Your task to perform on an android device: Clear the shopping cart on amazon. Search for razer thresher on amazon, select the first entry, add it to the cart, then select checkout. Image 0: 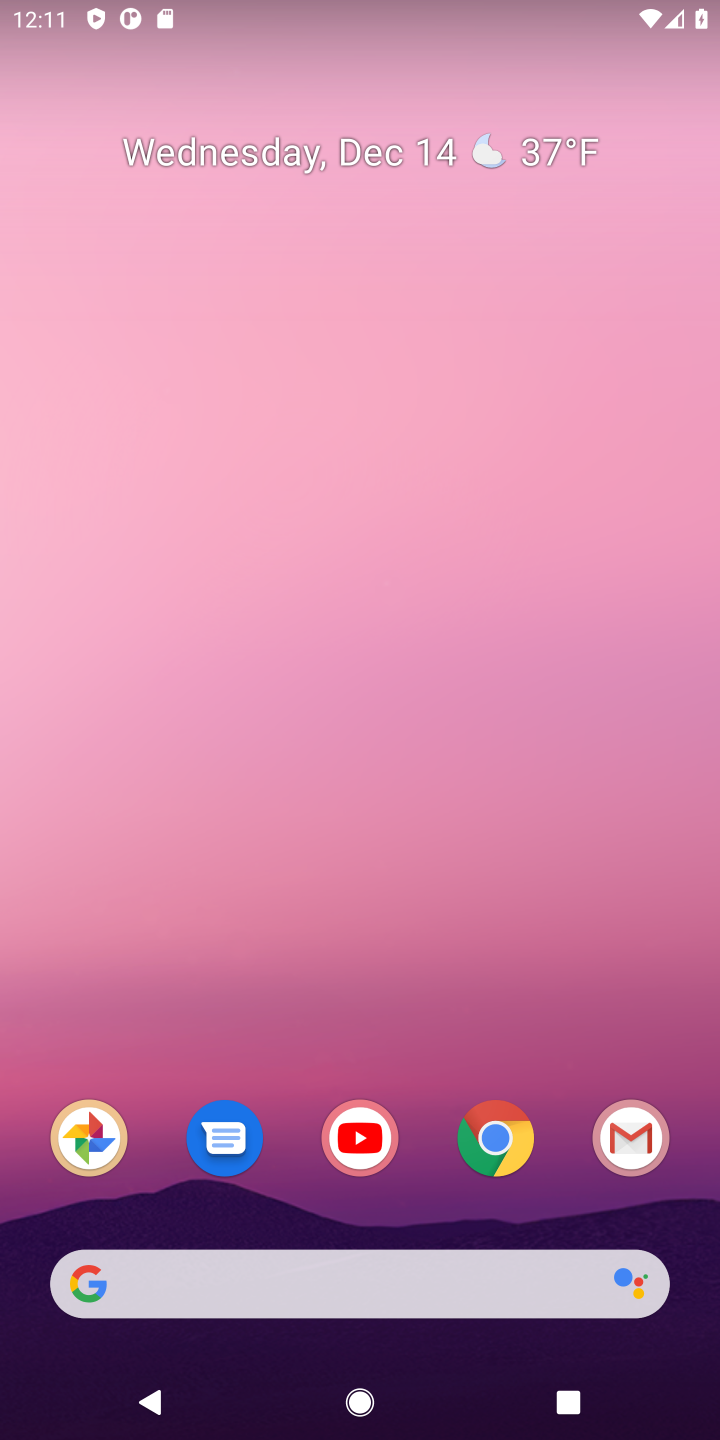
Step 0: click (503, 1137)
Your task to perform on an android device: Clear the shopping cart on amazon. Search for razer thresher on amazon, select the first entry, add it to the cart, then select checkout. Image 1: 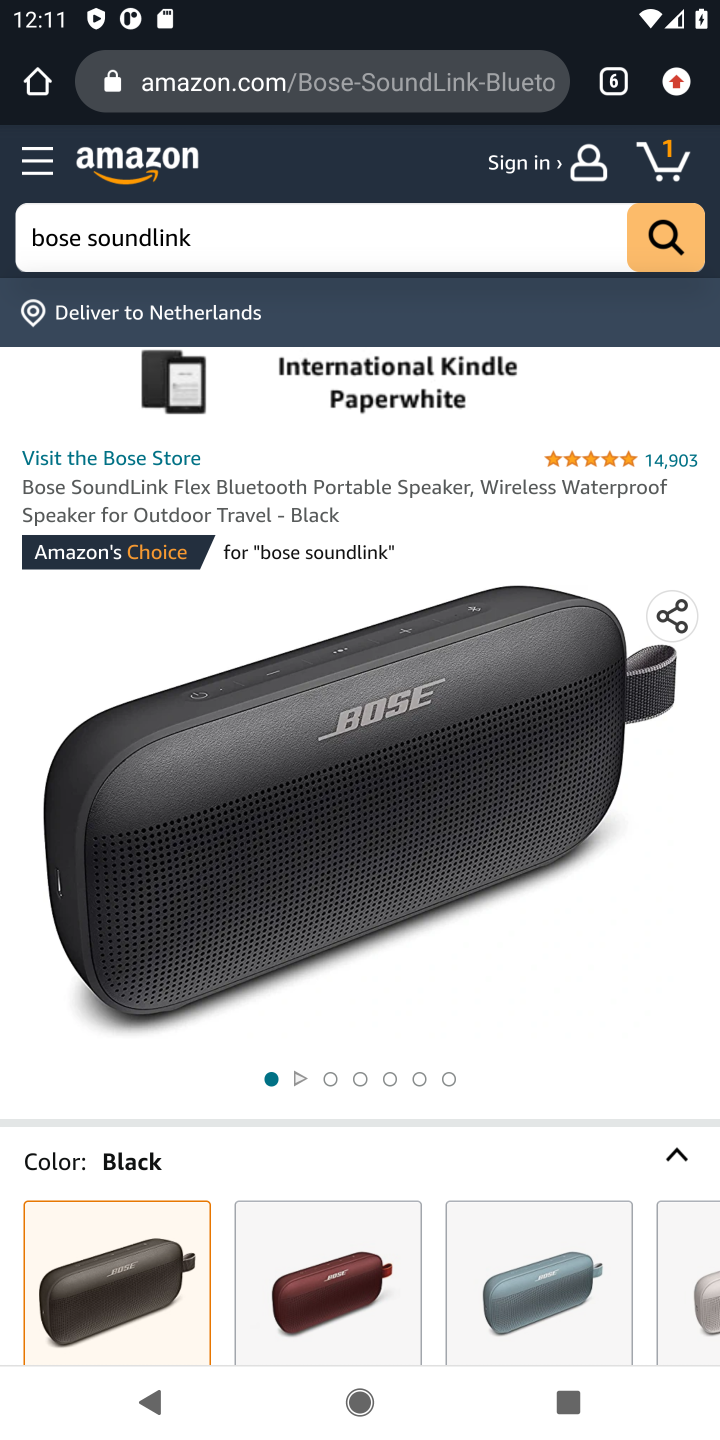
Step 1: click (670, 149)
Your task to perform on an android device: Clear the shopping cart on amazon. Search for razer thresher on amazon, select the first entry, add it to the cart, then select checkout. Image 2: 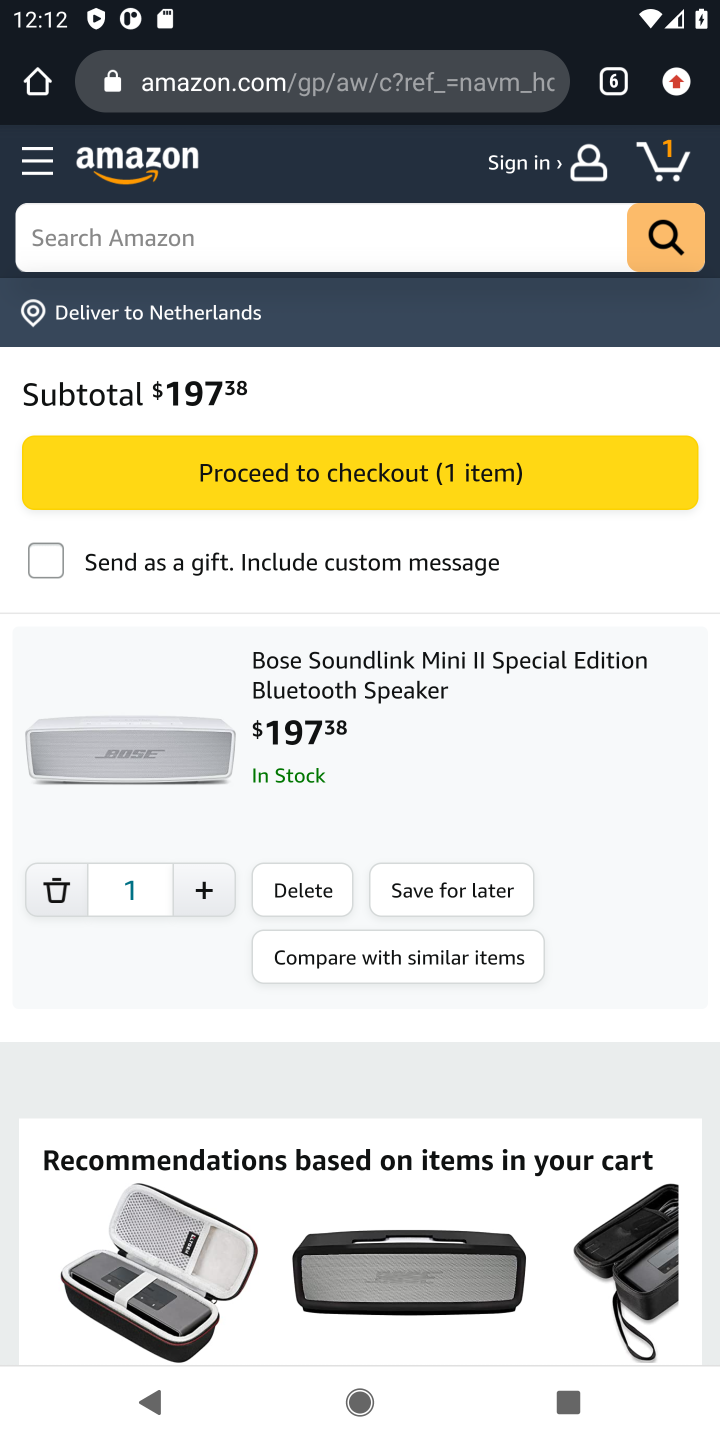
Step 2: click (300, 894)
Your task to perform on an android device: Clear the shopping cart on amazon. Search for razer thresher on amazon, select the first entry, add it to the cart, then select checkout. Image 3: 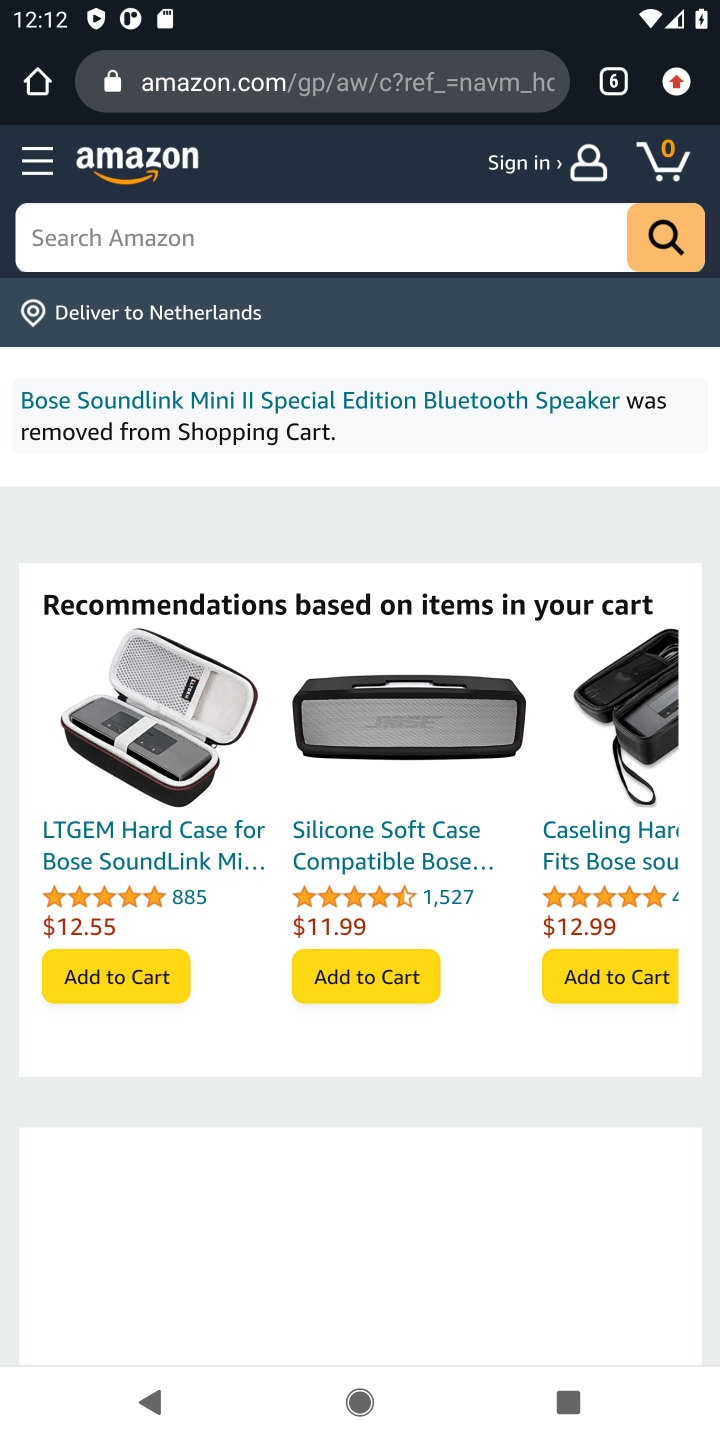
Step 3: click (264, 246)
Your task to perform on an android device: Clear the shopping cart on amazon. Search for razer thresher on amazon, select the first entry, add it to the cart, then select checkout. Image 4: 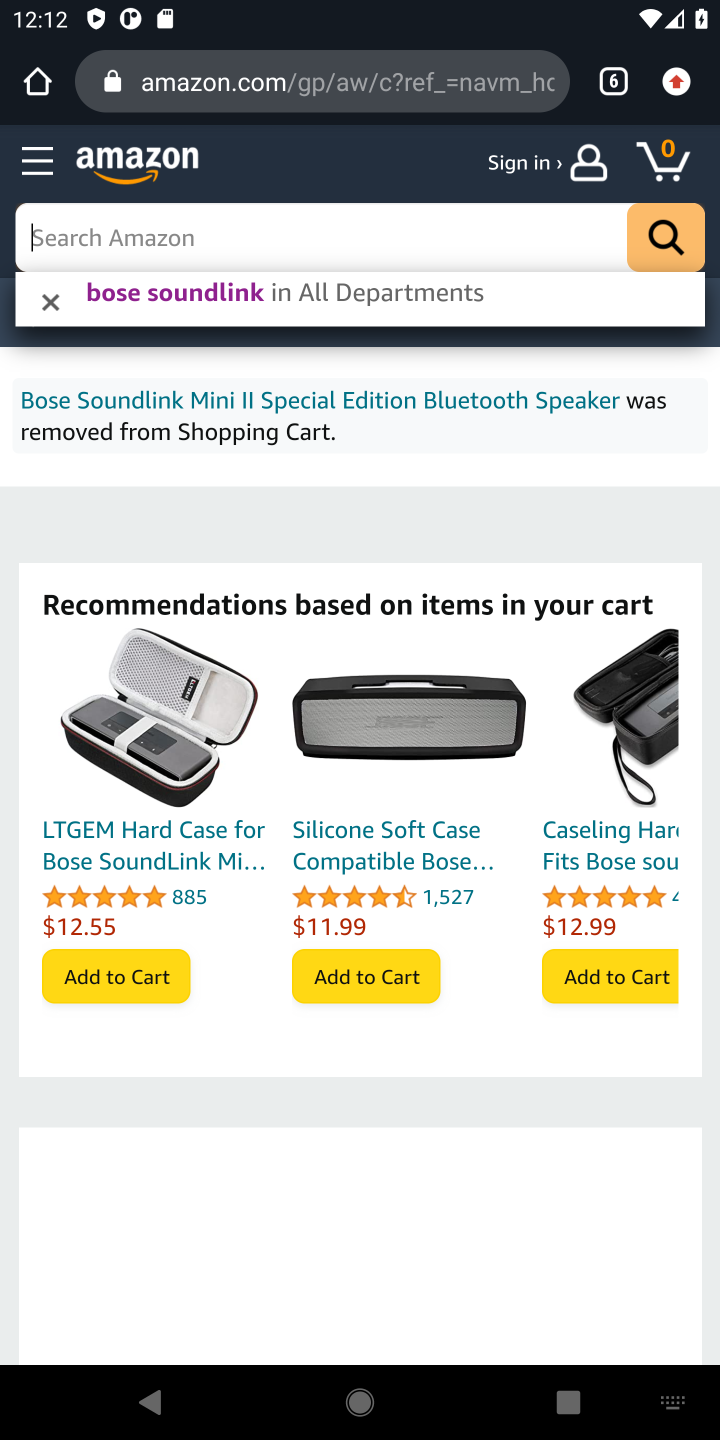
Step 4: type "razer thresher"
Your task to perform on an android device: Clear the shopping cart on amazon. Search for razer thresher on amazon, select the first entry, add it to the cart, then select checkout. Image 5: 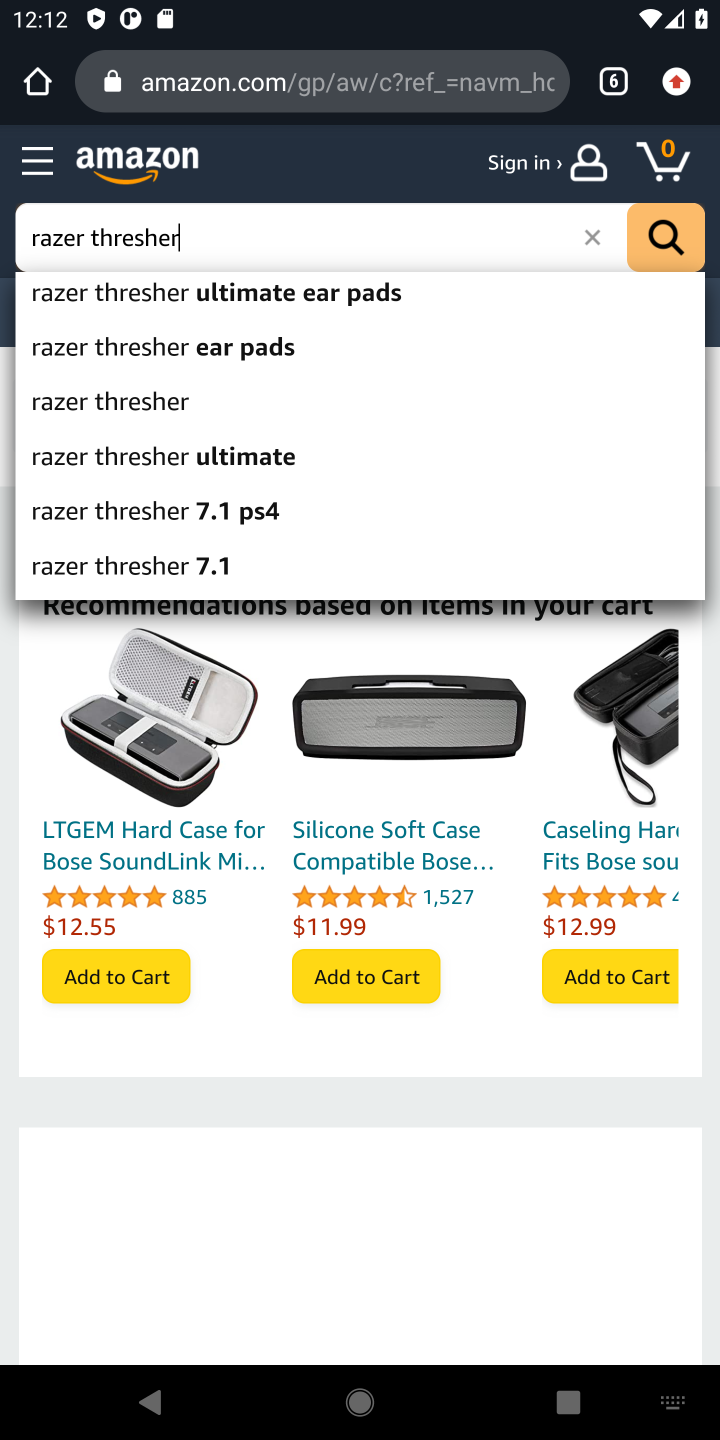
Step 5: click (126, 393)
Your task to perform on an android device: Clear the shopping cart on amazon. Search for razer thresher on amazon, select the first entry, add it to the cart, then select checkout. Image 6: 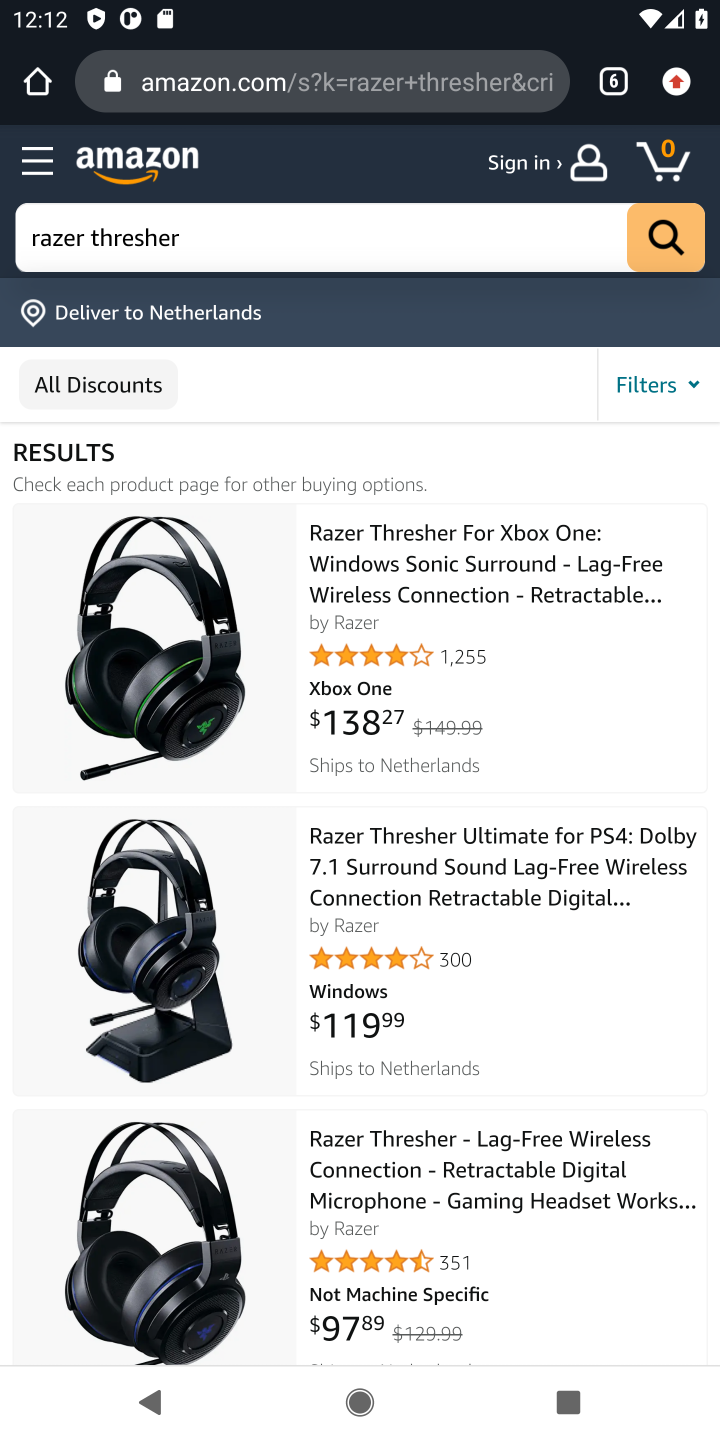
Step 6: click (403, 548)
Your task to perform on an android device: Clear the shopping cart on amazon. Search for razer thresher on amazon, select the first entry, add it to the cart, then select checkout. Image 7: 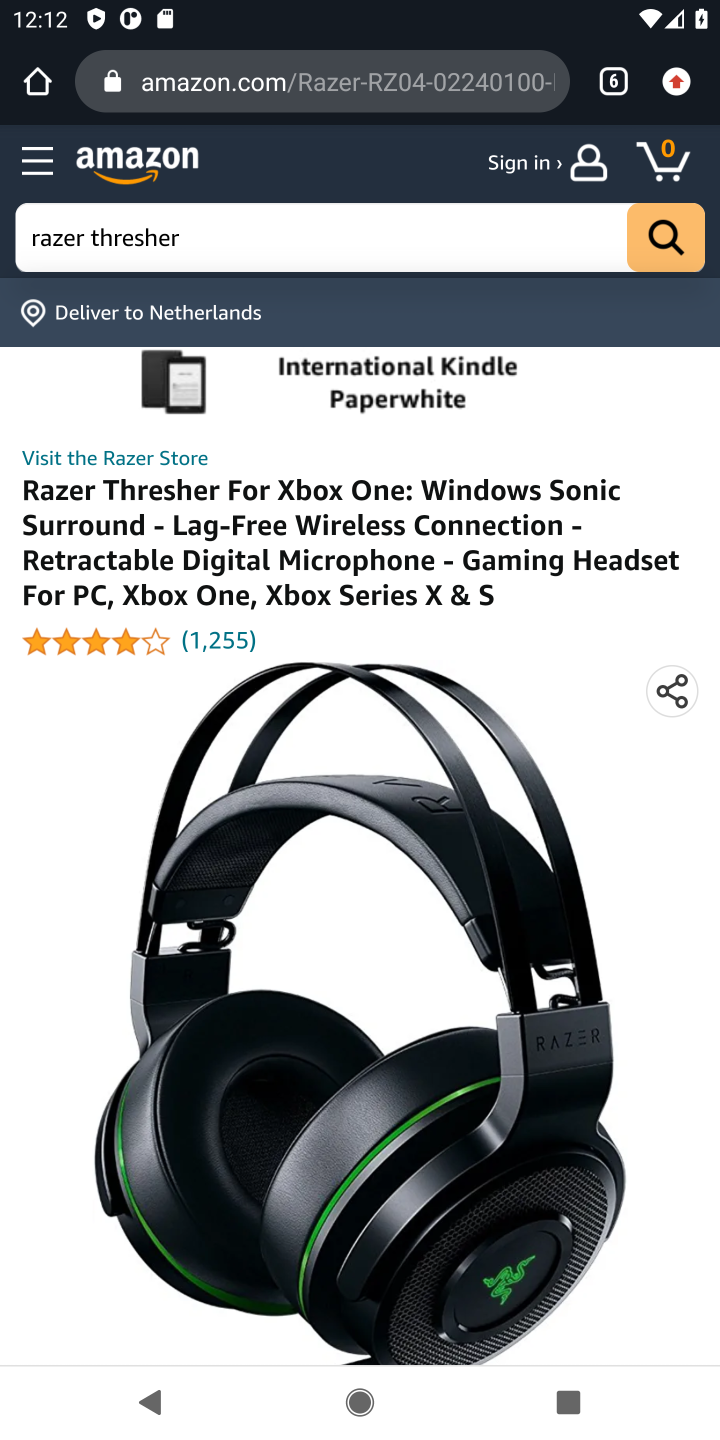
Step 7: drag from (545, 1100) to (667, 282)
Your task to perform on an android device: Clear the shopping cart on amazon. Search for razer thresher on amazon, select the first entry, add it to the cart, then select checkout. Image 8: 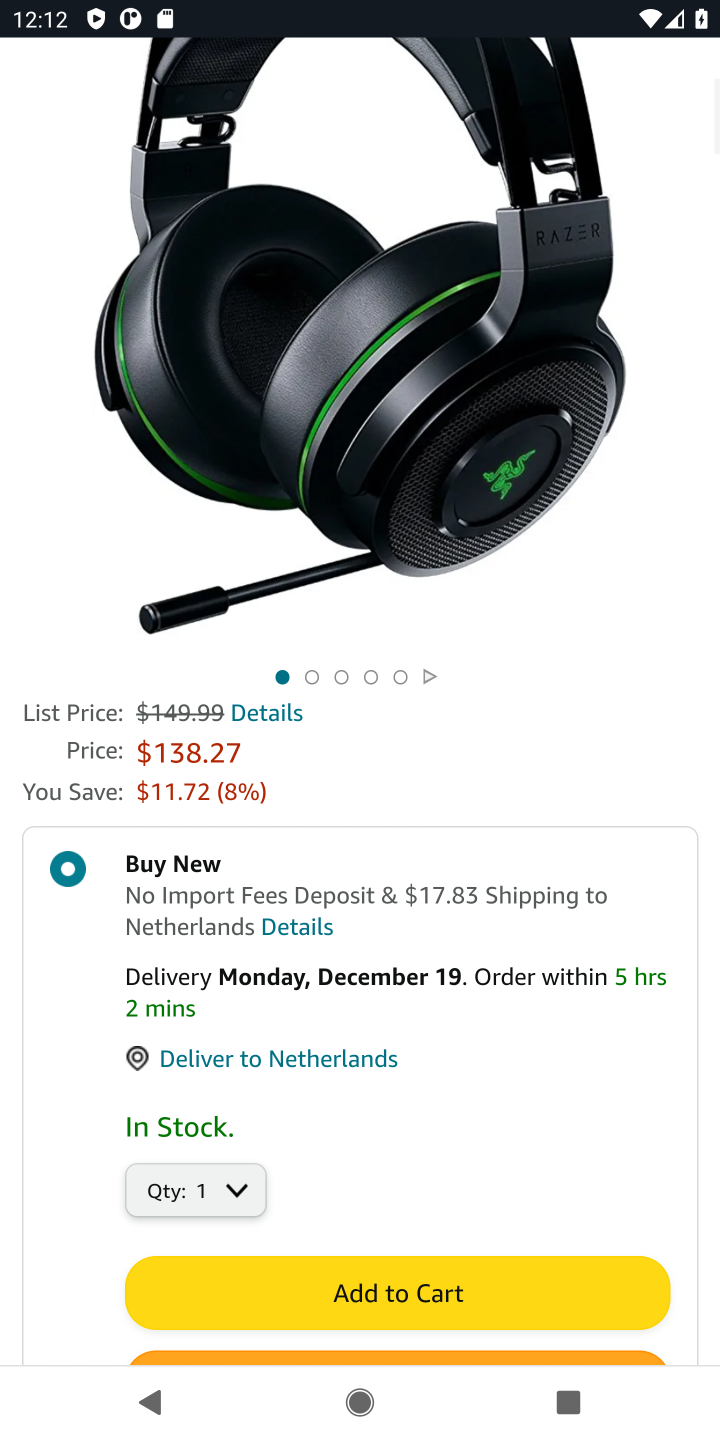
Step 8: drag from (405, 1162) to (567, 291)
Your task to perform on an android device: Clear the shopping cart on amazon. Search for razer thresher on amazon, select the first entry, add it to the cart, then select checkout. Image 9: 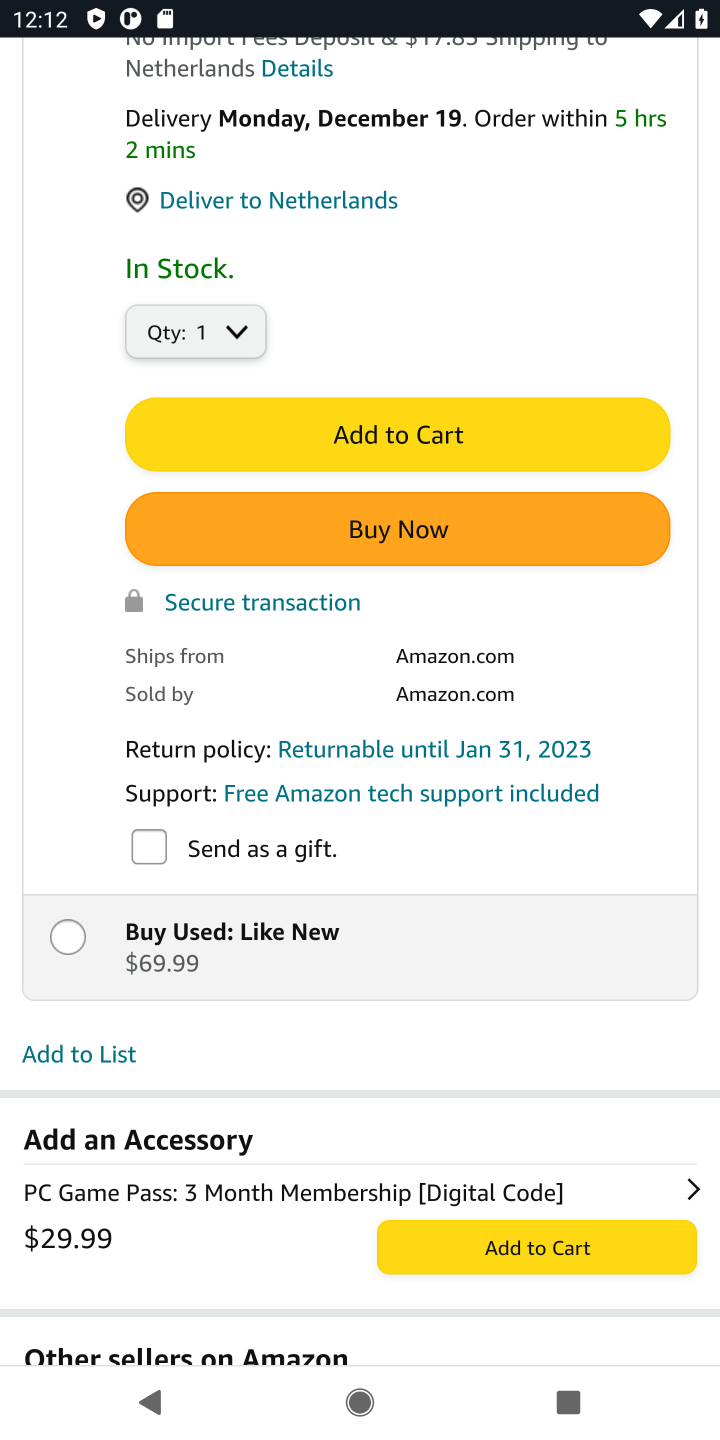
Step 9: click (416, 426)
Your task to perform on an android device: Clear the shopping cart on amazon. Search for razer thresher on amazon, select the first entry, add it to the cart, then select checkout. Image 10: 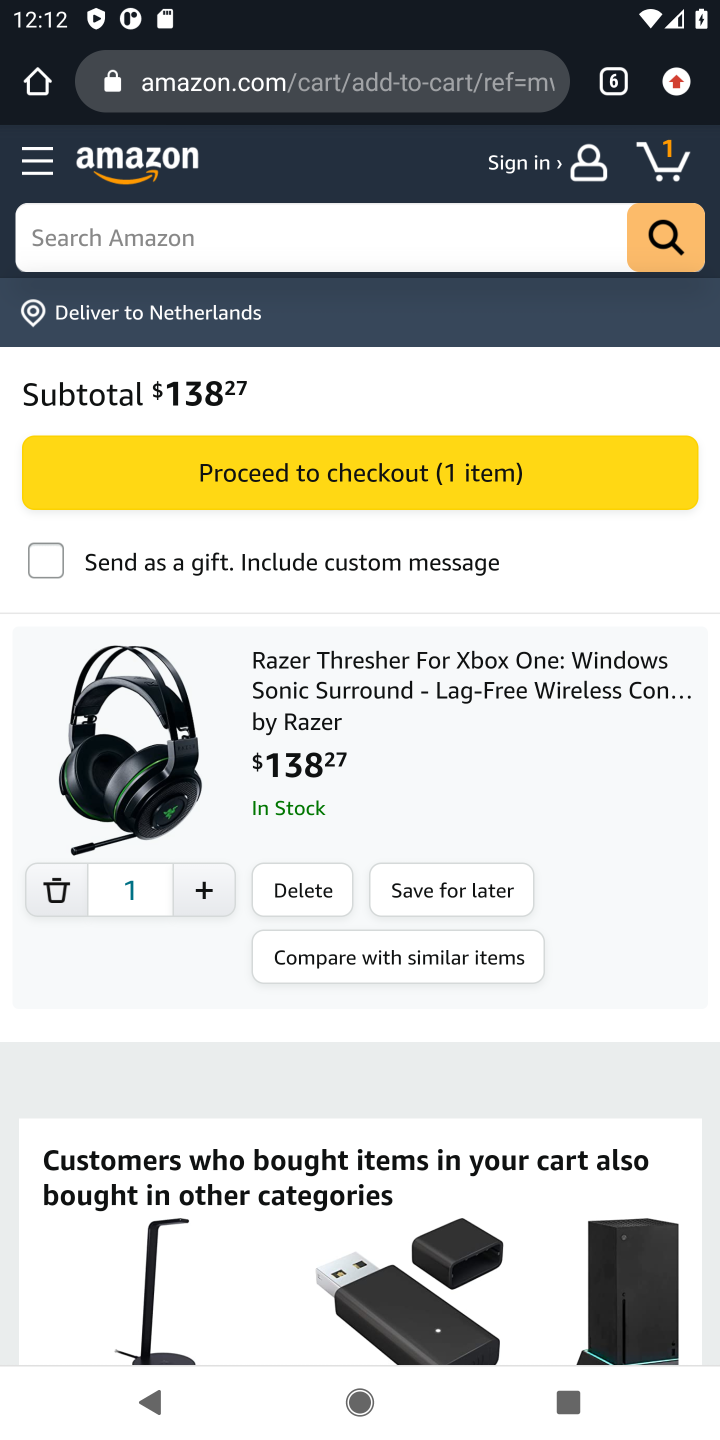
Step 10: task complete